Your task to perform on an android device: Open the calendar and show me this week's events Image 0: 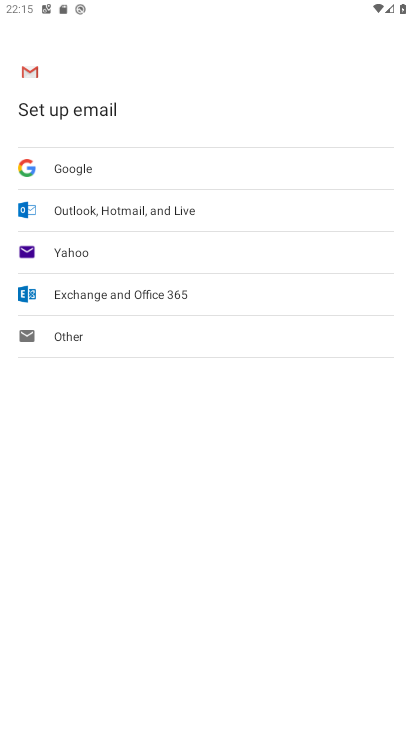
Step 0: press home button
Your task to perform on an android device: Open the calendar and show me this week's events Image 1: 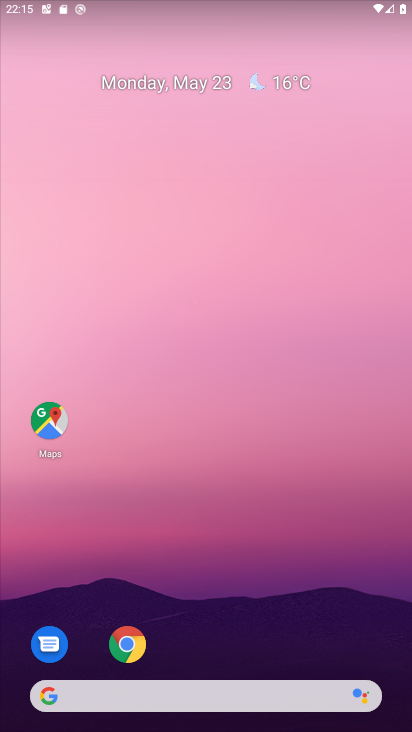
Step 1: drag from (218, 661) to (218, 12)
Your task to perform on an android device: Open the calendar and show me this week's events Image 2: 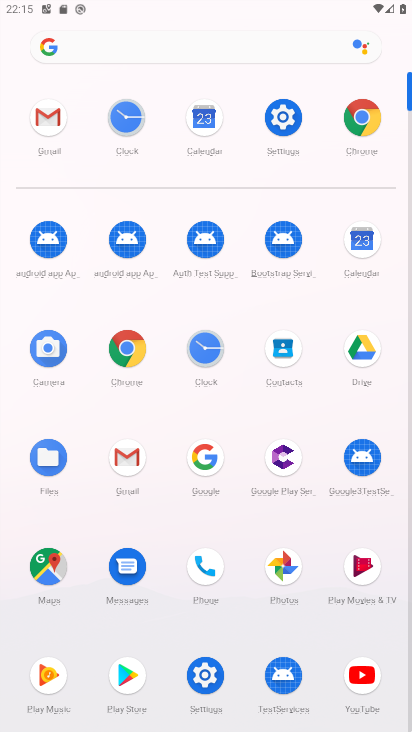
Step 2: click (361, 238)
Your task to perform on an android device: Open the calendar and show me this week's events Image 3: 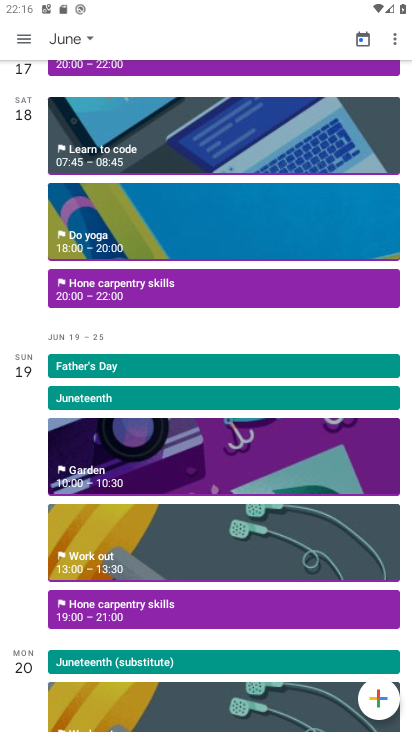
Step 3: click (89, 34)
Your task to perform on an android device: Open the calendar and show me this week's events Image 4: 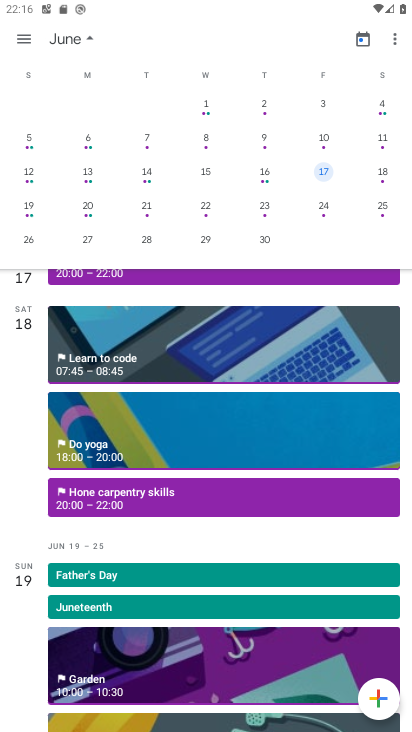
Step 4: drag from (36, 186) to (389, 169)
Your task to perform on an android device: Open the calendar and show me this week's events Image 5: 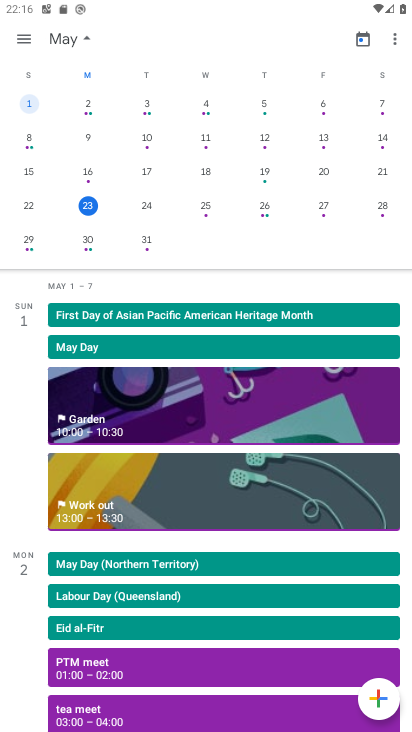
Step 5: click (80, 198)
Your task to perform on an android device: Open the calendar and show me this week's events Image 6: 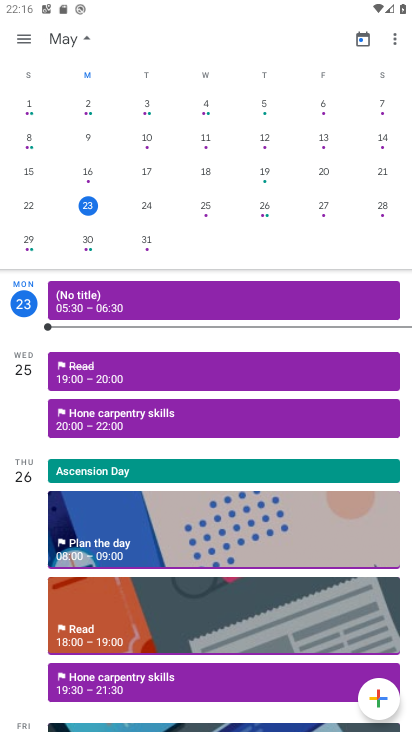
Step 6: task complete